Your task to perform on an android device: snooze an email in the gmail app Image 0: 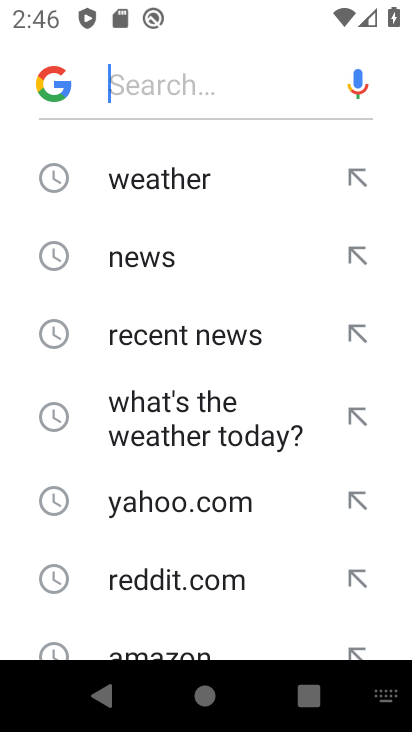
Step 0: press home button
Your task to perform on an android device: snooze an email in the gmail app Image 1: 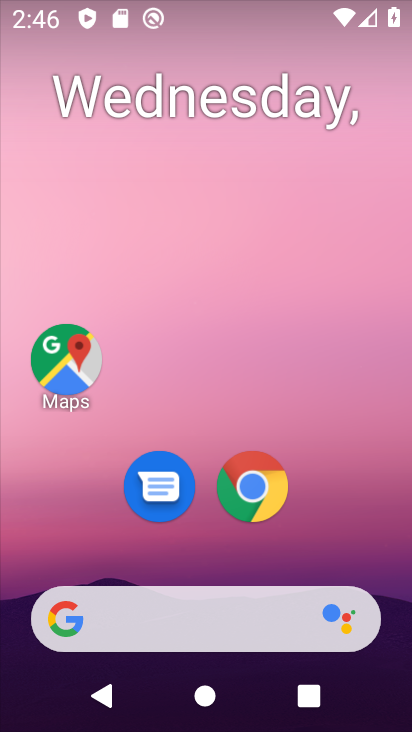
Step 1: drag from (201, 590) to (201, 272)
Your task to perform on an android device: snooze an email in the gmail app Image 2: 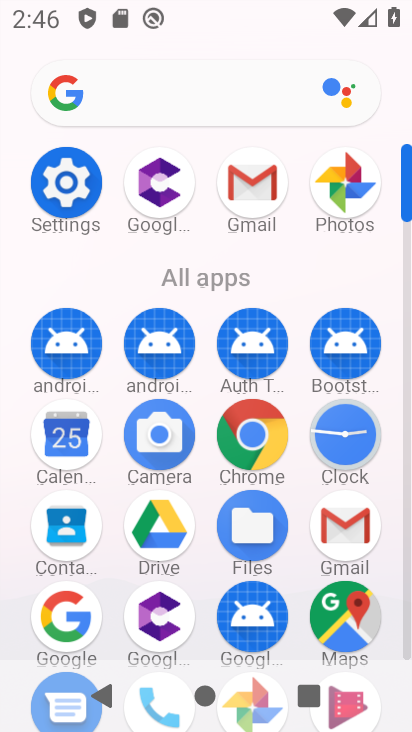
Step 2: click (251, 195)
Your task to perform on an android device: snooze an email in the gmail app Image 3: 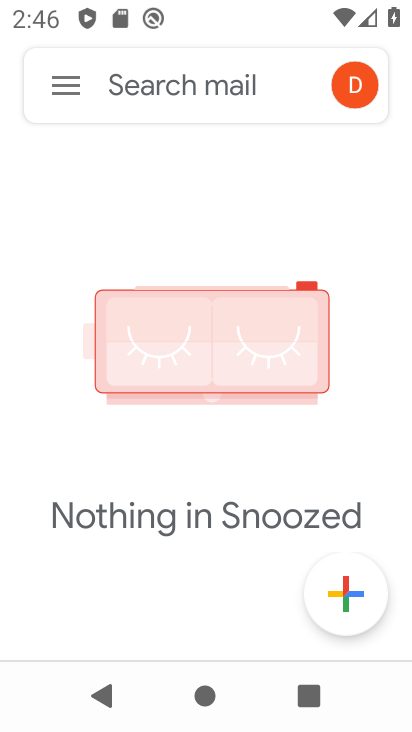
Step 3: task complete